Your task to perform on an android device: toggle pop-ups in chrome Image 0: 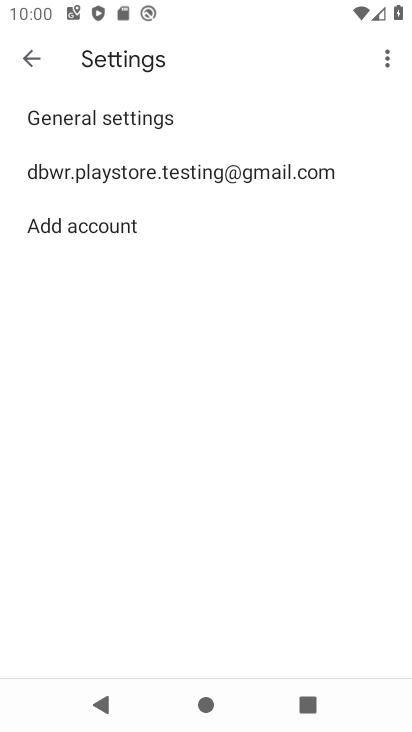
Step 0: press home button
Your task to perform on an android device: toggle pop-ups in chrome Image 1: 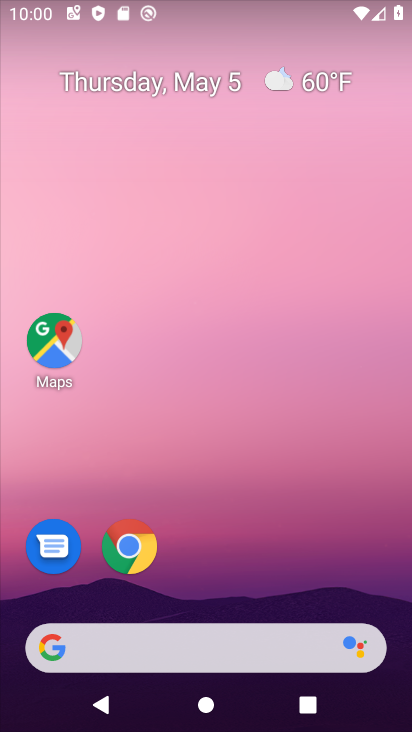
Step 1: click (122, 557)
Your task to perform on an android device: toggle pop-ups in chrome Image 2: 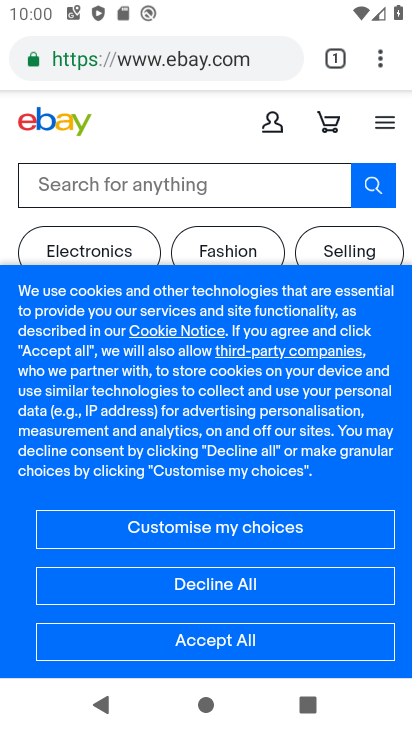
Step 2: click (376, 60)
Your task to perform on an android device: toggle pop-ups in chrome Image 3: 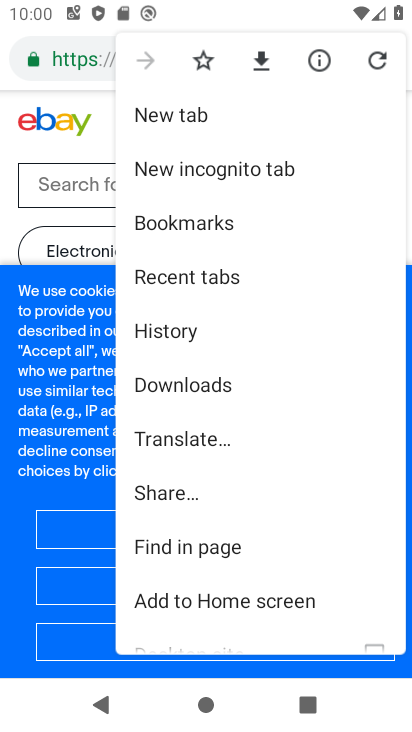
Step 3: drag from (232, 541) to (226, 351)
Your task to perform on an android device: toggle pop-ups in chrome Image 4: 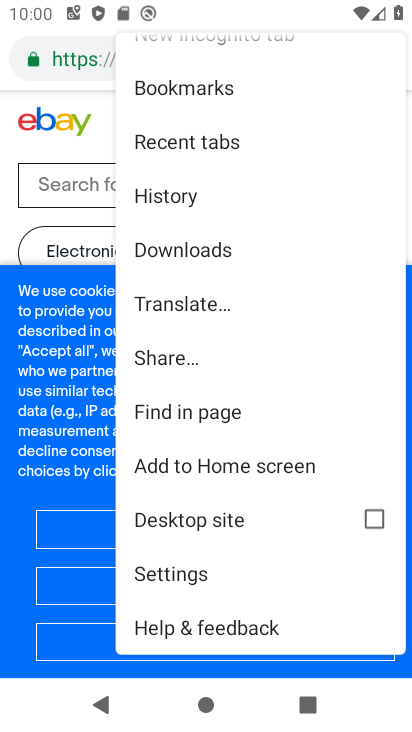
Step 4: click (198, 561)
Your task to perform on an android device: toggle pop-ups in chrome Image 5: 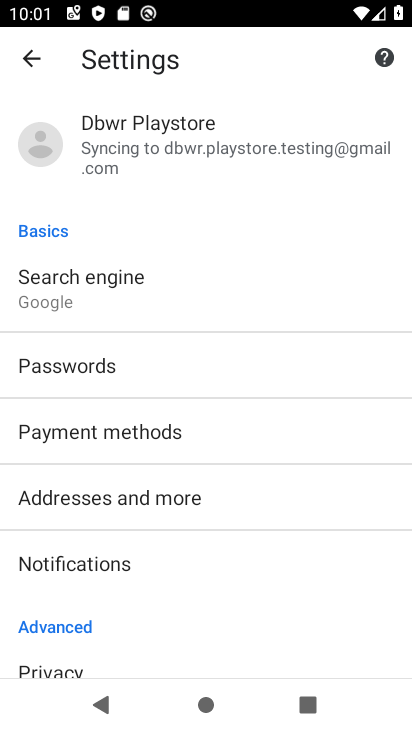
Step 5: drag from (95, 625) to (93, 459)
Your task to perform on an android device: toggle pop-ups in chrome Image 6: 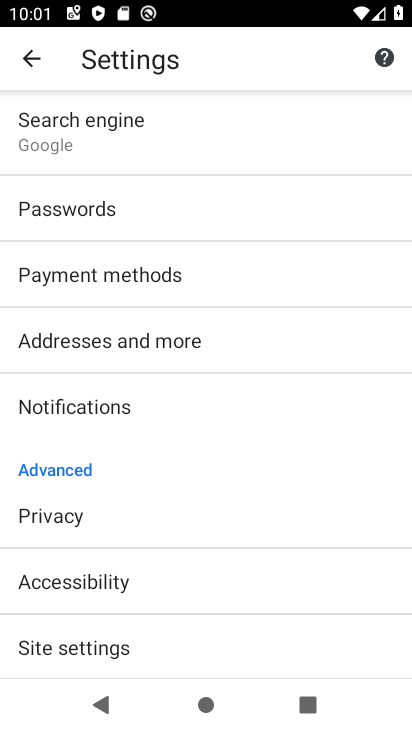
Step 6: click (95, 635)
Your task to perform on an android device: toggle pop-ups in chrome Image 7: 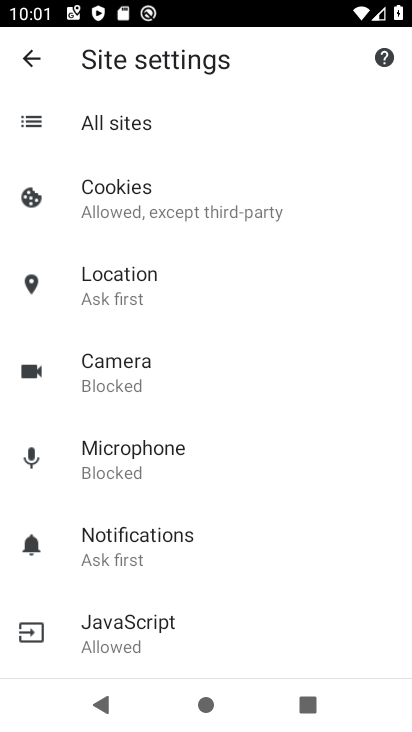
Step 7: drag from (156, 607) to (143, 522)
Your task to perform on an android device: toggle pop-ups in chrome Image 8: 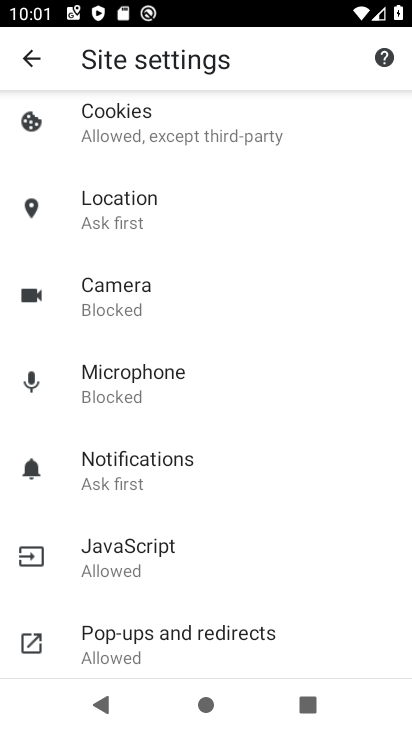
Step 8: click (166, 624)
Your task to perform on an android device: toggle pop-ups in chrome Image 9: 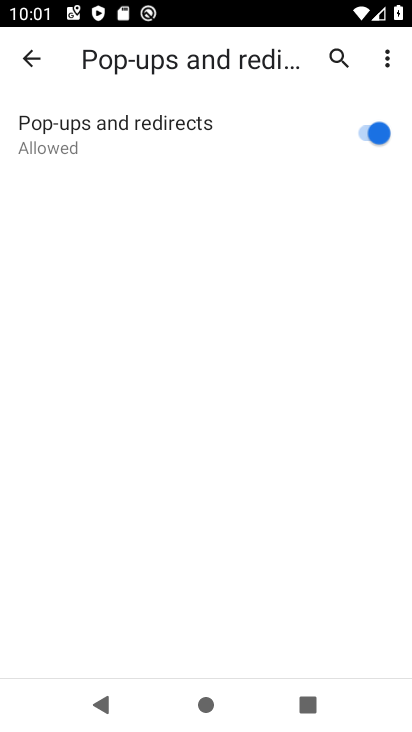
Step 9: click (371, 136)
Your task to perform on an android device: toggle pop-ups in chrome Image 10: 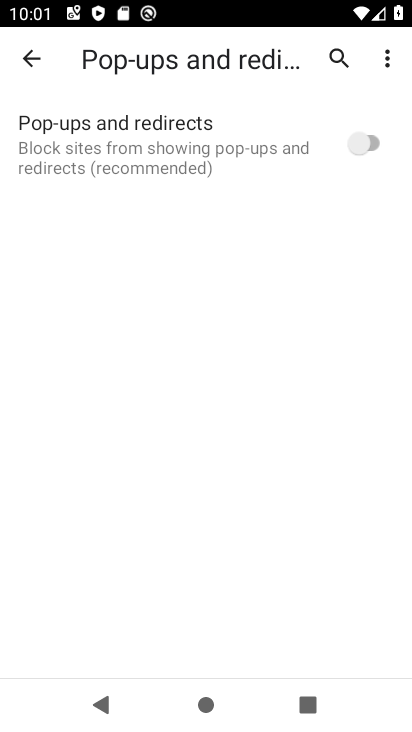
Step 10: task complete